Your task to perform on an android device: Open display settings Image 0: 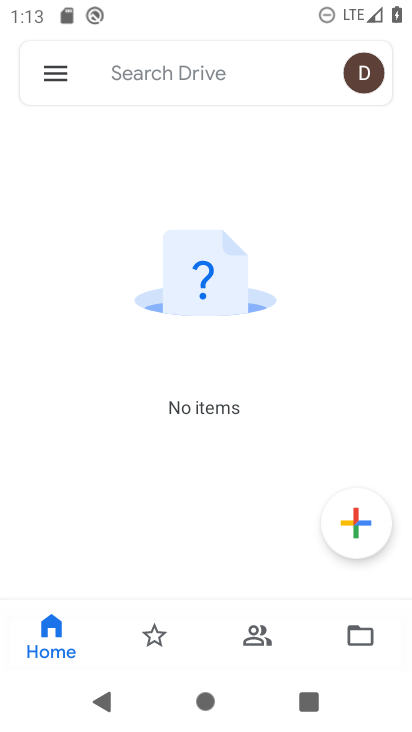
Step 0: press home button
Your task to perform on an android device: Open display settings Image 1: 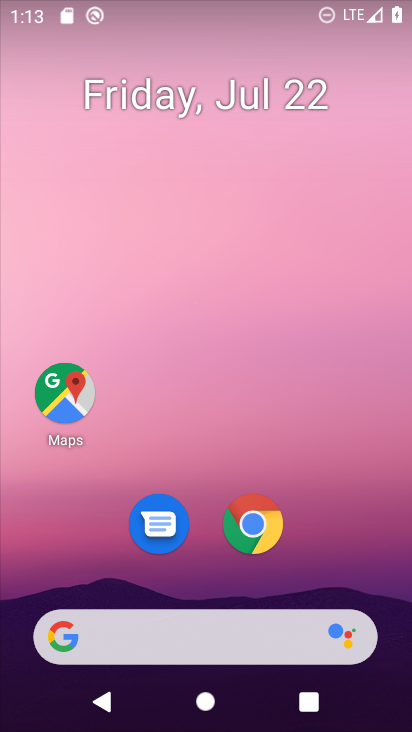
Step 1: drag from (318, 496) to (270, 38)
Your task to perform on an android device: Open display settings Image 2: 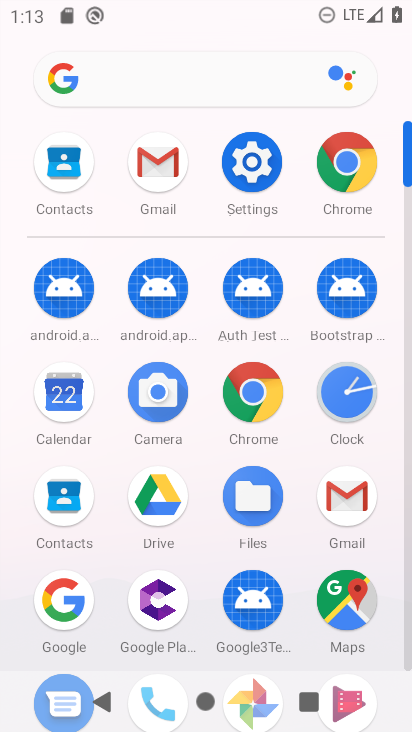
Step 2: click (247, 171)
Your task to perform on an android device: Open display settings Image 3: 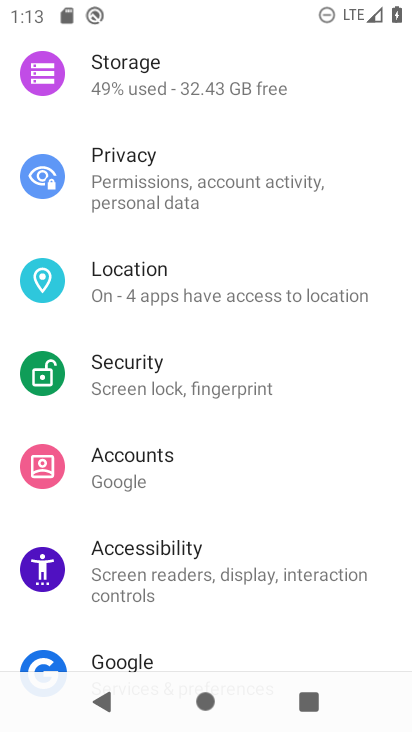
Step 3: drag from (203, 106) to (176, 647)
Your task to perform on an android device: Open display settings Image 4: 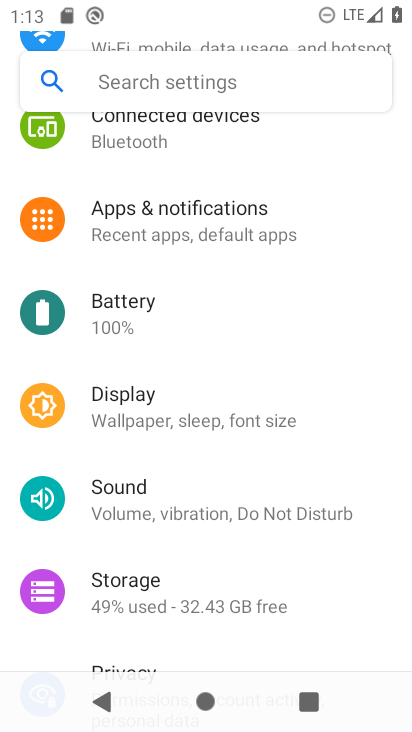
Step 4: click (160, 394)
Your task to perform on an android device: Open display settings Image 5: 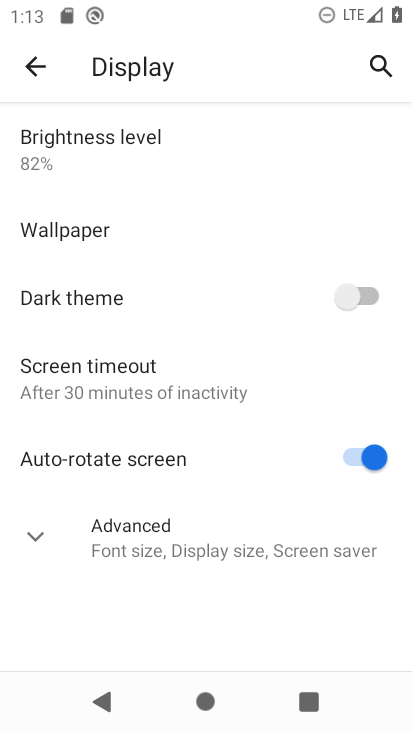
Step 5: task complete